Your task to perform on an android device: Open notification settings Image 0: 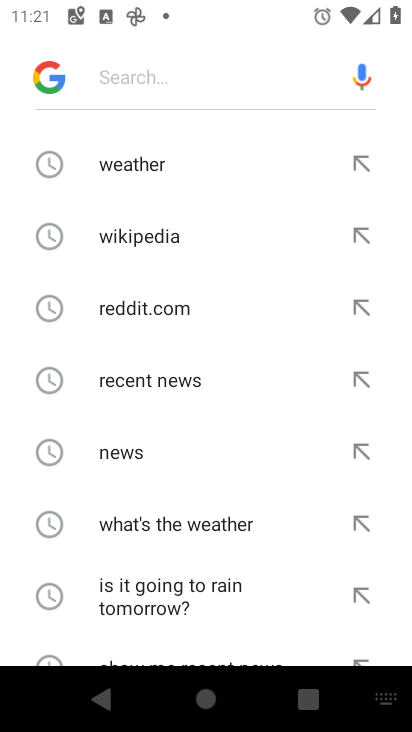
Step 0: press home button
Your task to perform on an android device: Open notification settings Image 1: 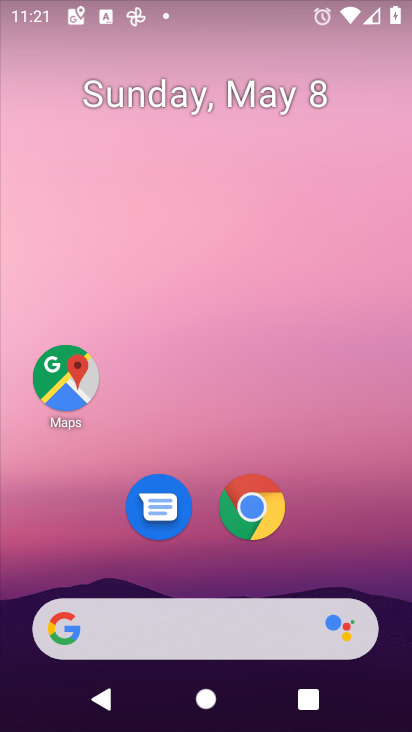
Step 1: drag from (271, 695) to (356, 116)
Your task to perform on an android device: Open notification settings Image 2: 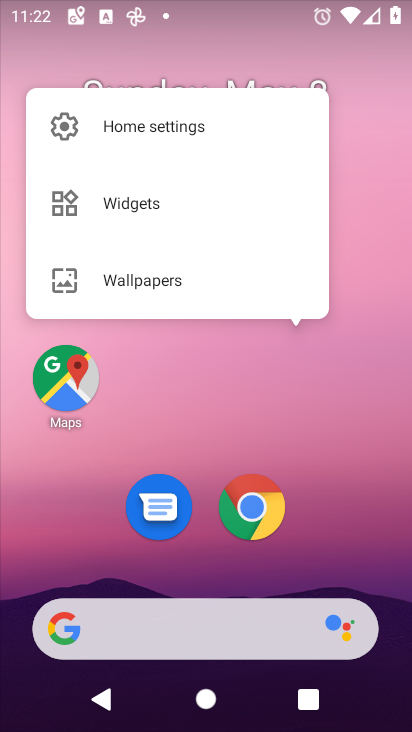
Step 2: drag from (259, 718) to (403, 123)
Your task to perform on an android device: Open notification settings Image 3: 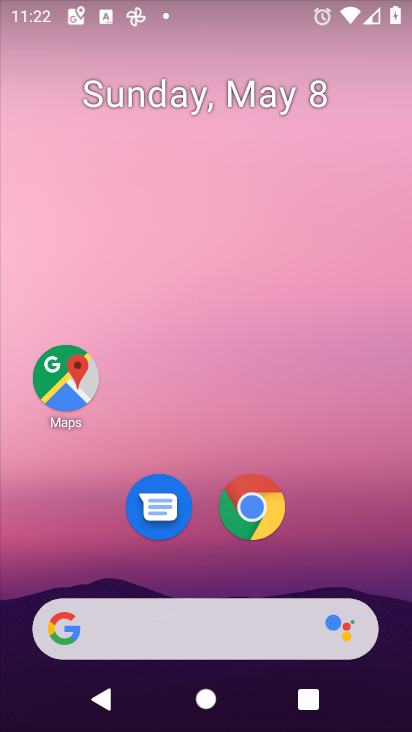
Step 3: drag from (262, 710) to (308, 249)
Your task to perform on an android device: Open notification settings Image 4: 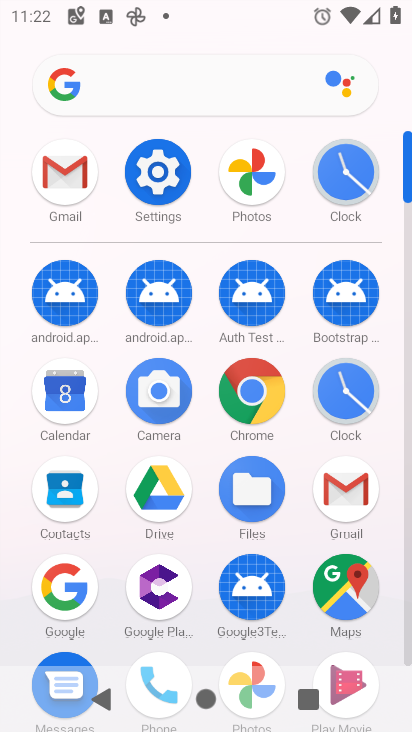
Step 4: click (162, 177)
Your task to perform on an android device: Open notification settings Image 5: 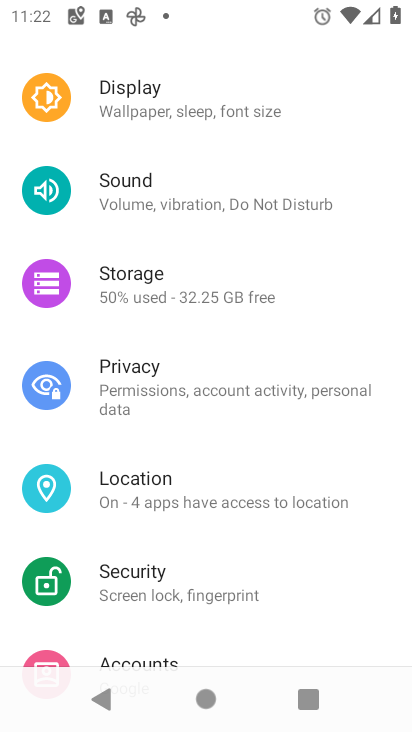
Step 5: drag from (346, 206) to (267, 646)
Your task to perform on an android device: Open notification settings Image 6: 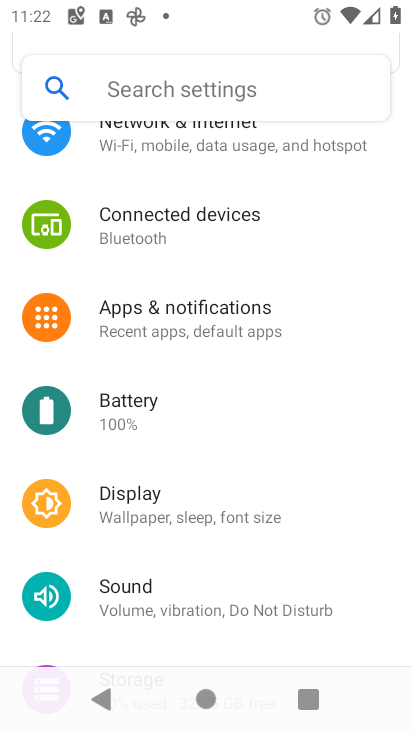
Step 6: click (239, 314)
Your task to perform on an android device: Open notification settings Image 7: 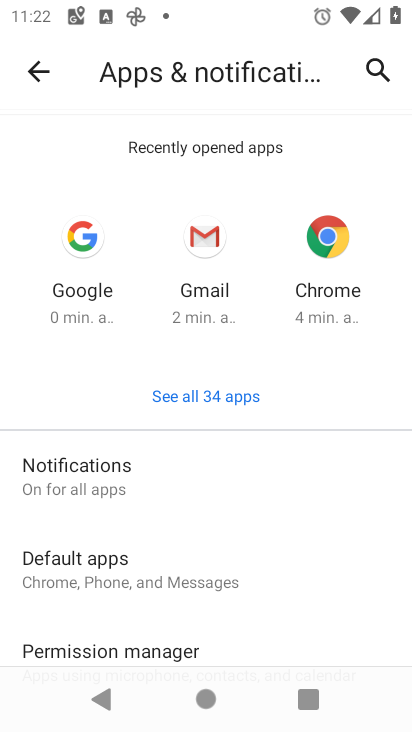
Step 7: task complete